Your task to perform on an android device: Open Google Image 0: 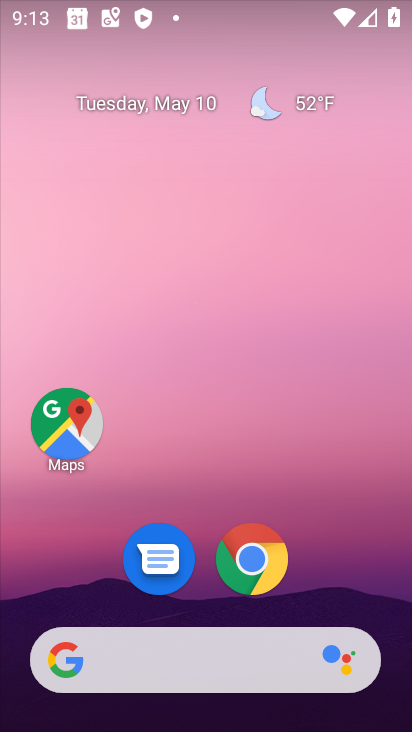
Step 0: drag from (363, 552) to (138, 13)
Your task to perform on an android device: Open Google Image 1: 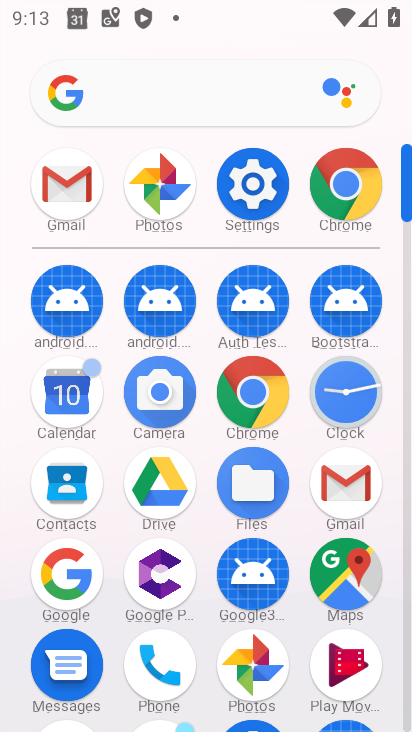
Step 1: drag from (10, 569) to (2, 249)
Your task to perform on an android device: Open Google Image 2: 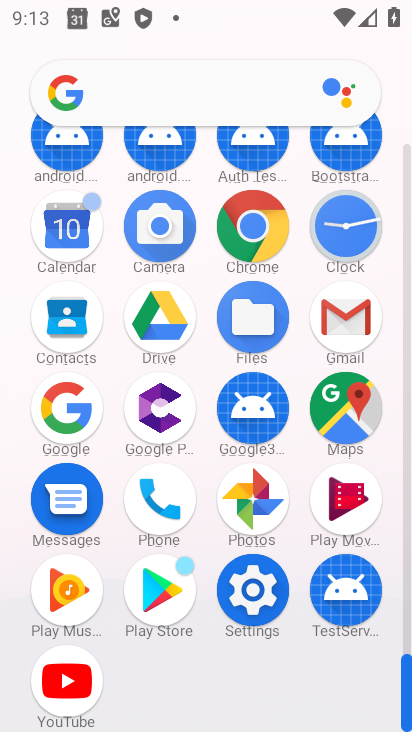
Step 2: click (247, 225)
Your task to perform on an android device: Open Google Image 3: 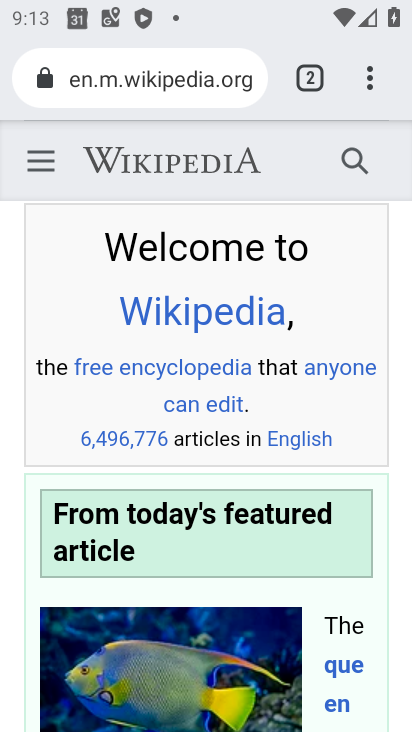
Step 3: click (176, 73)
Your task to perform on an android device: Open Google Image 4: 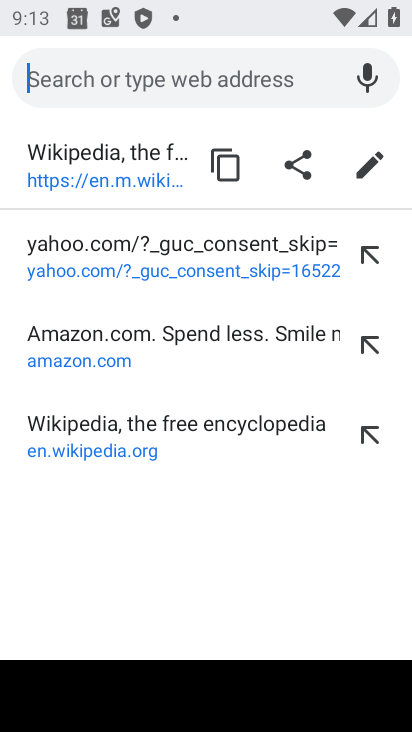
Step 4: type "Google"
Your task to perform on an android device: Open Google Image 5: 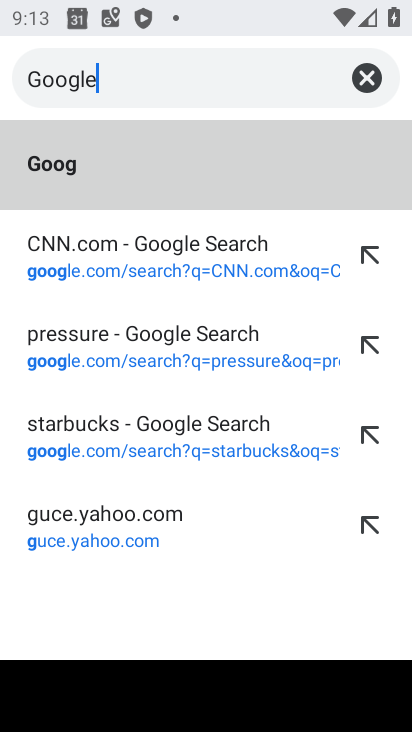
Step 5: type ""
Your task to perform on an android device: Open Google Image 6: 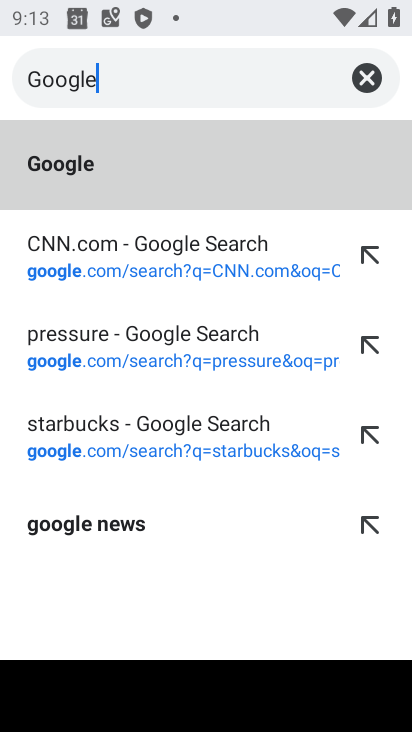
Step 6: click (83, 168)
Your task to perform on an android device: Open Google Image 7: 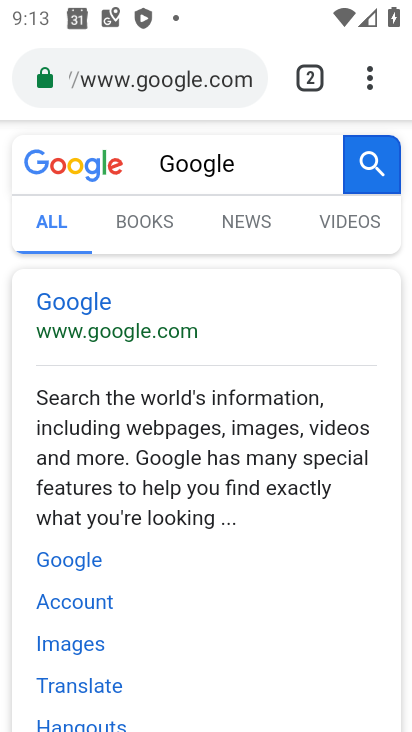
Step 7: click (43, 297)
Your task to perform on an android device: Open Google Image 8: 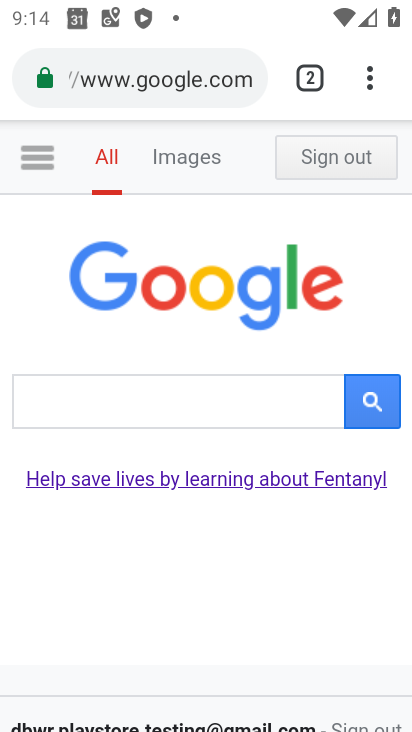
Step 8: task complete